Your task to perform on an android device: choose inbox layout in the gmail app Image 0: 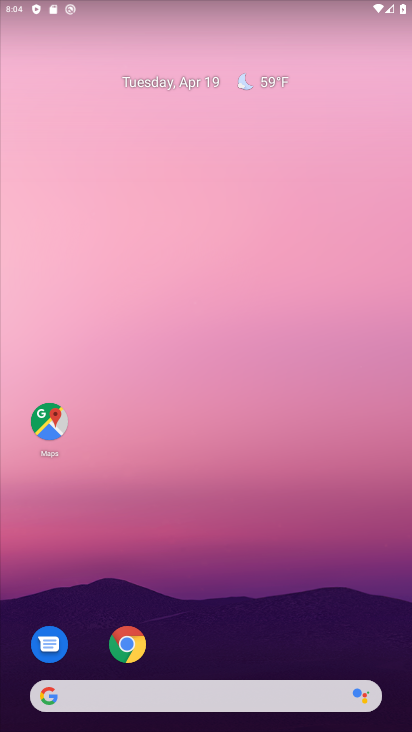
Step 0: drag from (287, 501) to (260, 122)
Your task to perform on an android device: choose inbox layout in the gmail app Image 1: 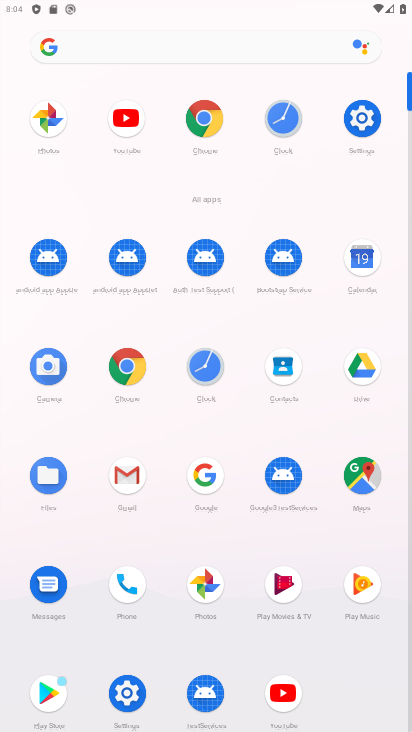
Step 1: click (121, 480)
Your task to perform on an android device: choose inbox layout in the gmail app Image 2: 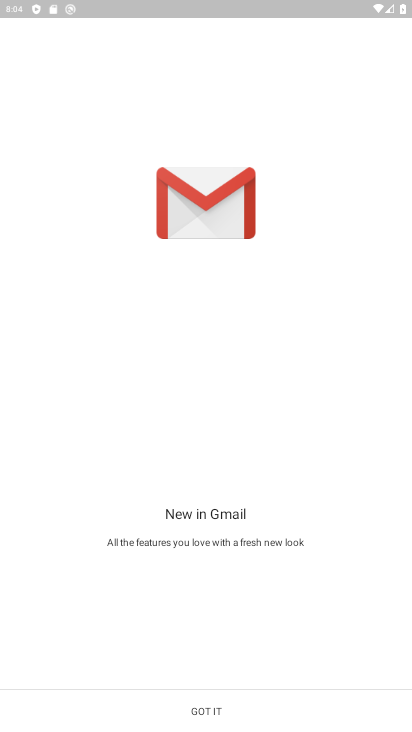
Step 2: click (218, 711)
Your task to perform on an android device: choose inbox layout in the gmail app Image 3: 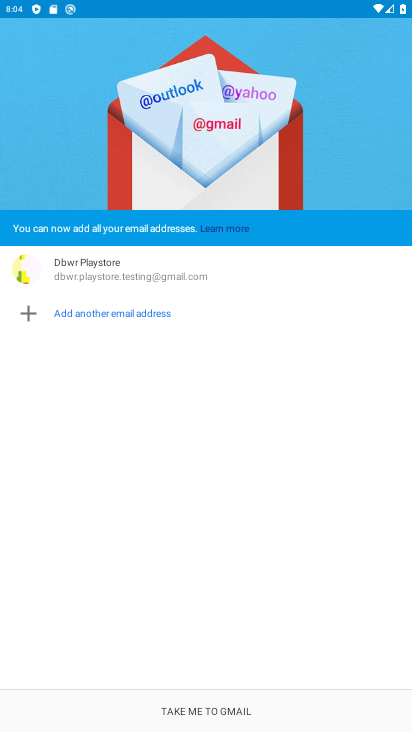
Step 3: click (232, 714)
Your task to perform on an android device: choose inbox layout in the gmail app Image 4: 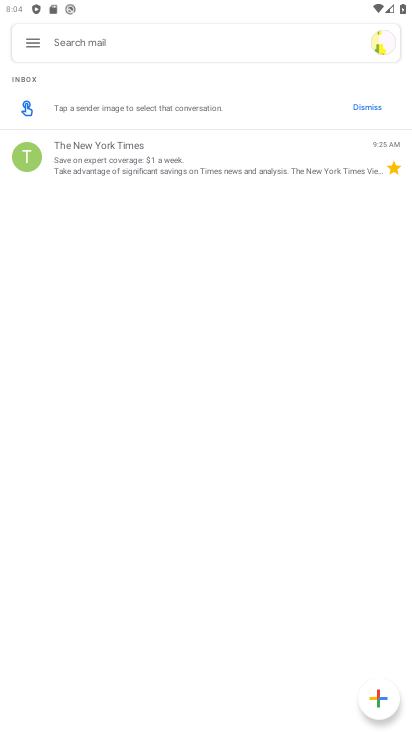
Step 4: click (39, 46)
Your task to perform on an android device: choose inbox layout in the gmail app Image 5: 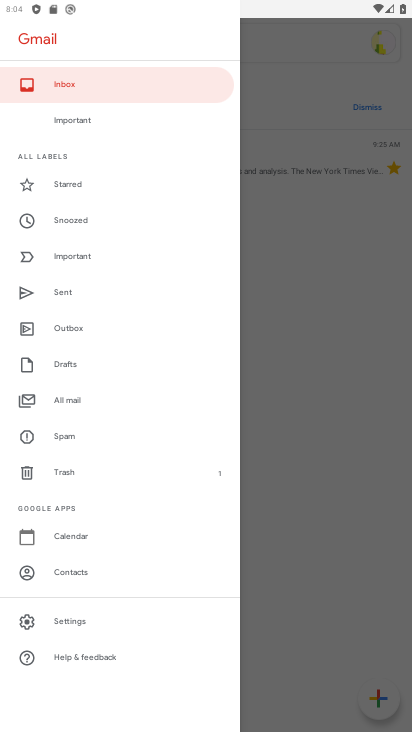
Step 5: click (69, 86)
Your task to perform on an android device: choose inbox layout in the gmail app Image 6: 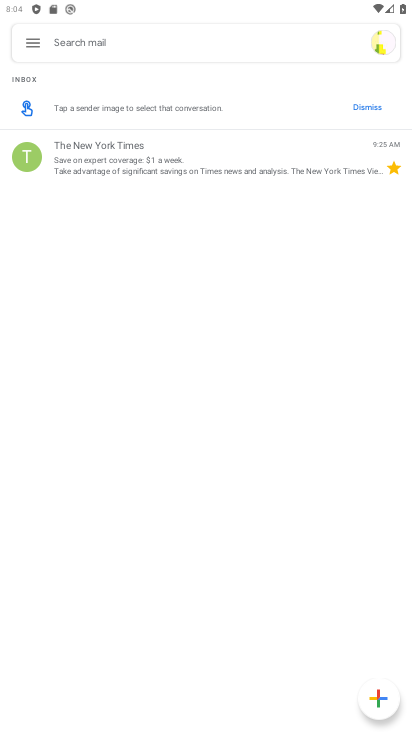
Step 6: task complete